Your task to perform on an android device: open app "Nova Launcher" (install if not already installed) and go to login screen Image 0: 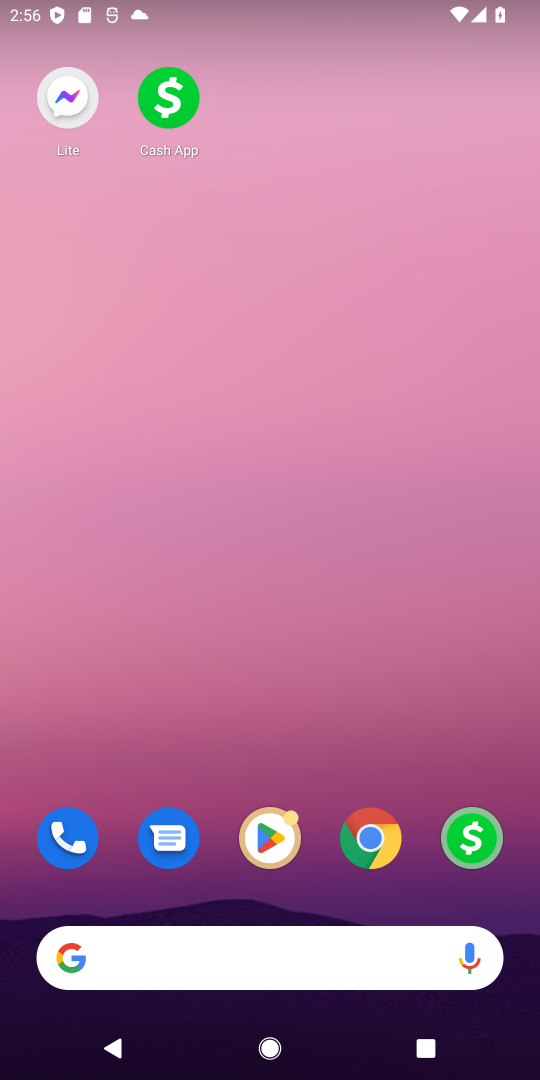
Step 0: click (258, 853)
Your task to perform on an android device: open app "Nova Launcher" (install if not already installed) and go to login screen Image 1: 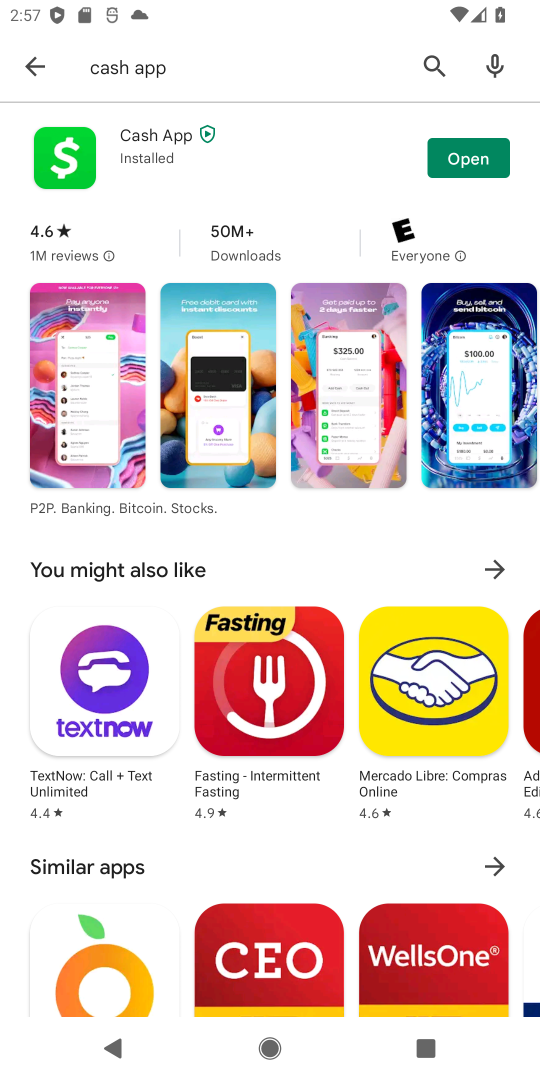
Step 1: click (31, 74)
Your task to perform on an android device: open app "Nova Launcher" (install if not already installed) and go to login screen Image 2: 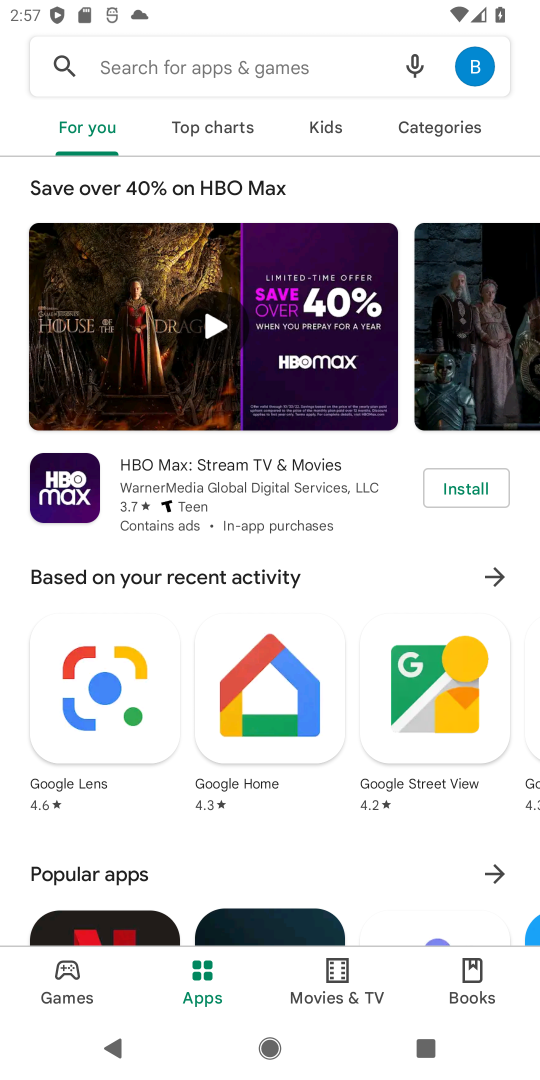
Step 2: click (160, 73)
Your task to perform on an android device: open app "Nova Launcher" (install if not already installed) and go to login screen Image 3: 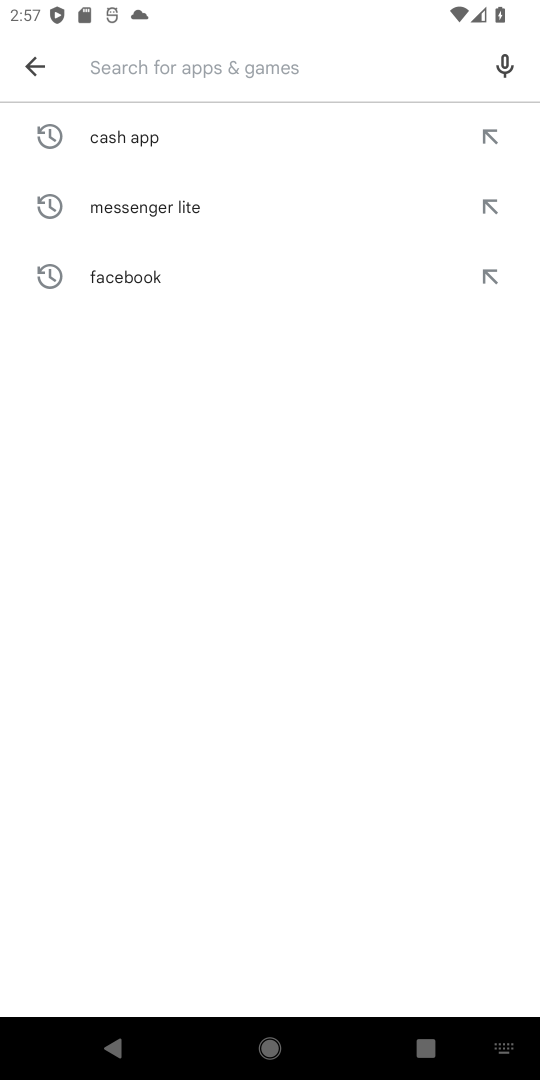
Step 3: type "Nova Launcher"
Your task to perform on an android device: open app "Nova Launcher" (install if not already installed) and go to login screen Image 4: 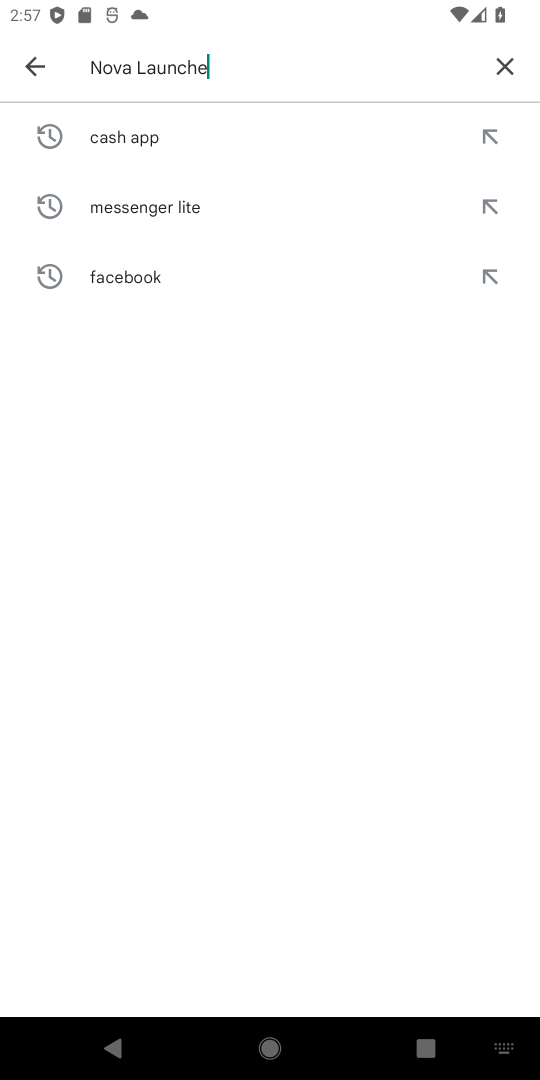
Step 4: type ""
Your task to perform on an android device: open app "Nova Launcher" (install if not already installed) and go to login screen Image 5: 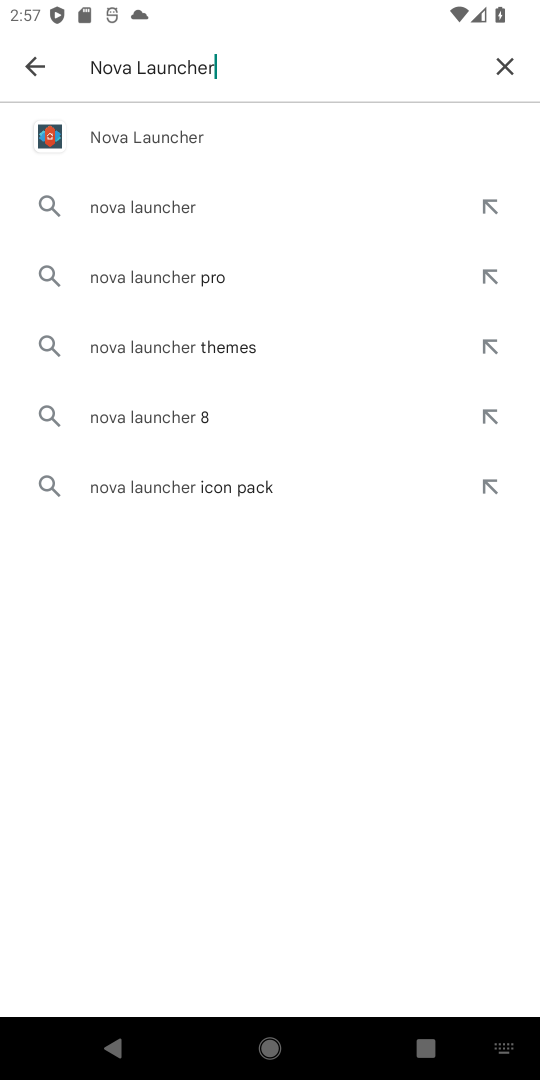
Step 5: click (204, 128)
Your task to perform on an android device: open app "Nova Launcher" (install if not already installed) and go to login screen Image 6: 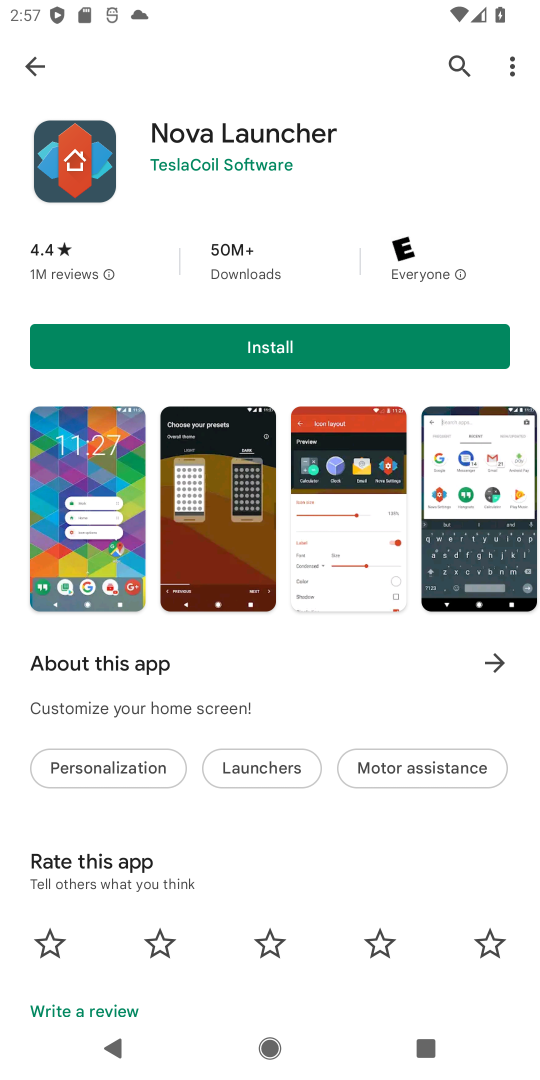
Step 6: click (228, 347)
Your task to perform on an android device: open app "Nova Launcher" (install if not already installed) and go to login screen Image 7: 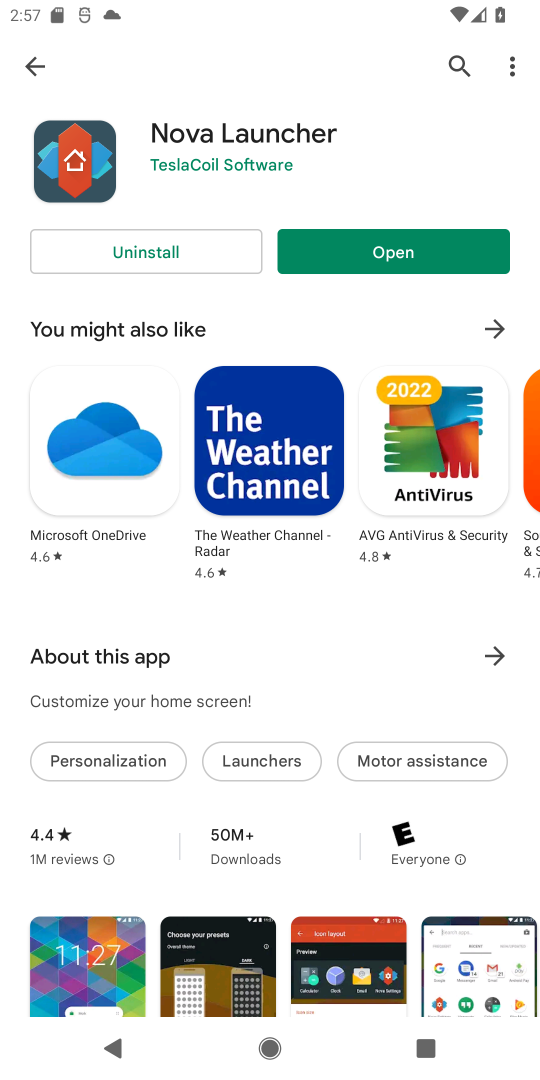
Step 7: click (325, 257)
Your task to perform on an android device: open app "Nova Launcher" (install if not already installed) and go to login screen Image 8: 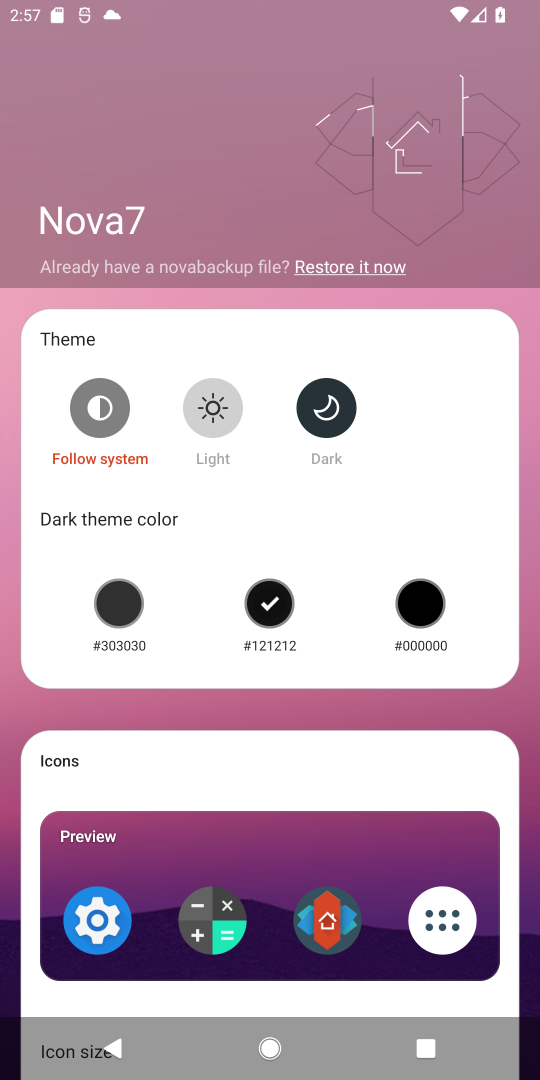
Step 8: task complete